Your task to perform on an android device: uninstall "Chime – Mobile Banking" Image 0: 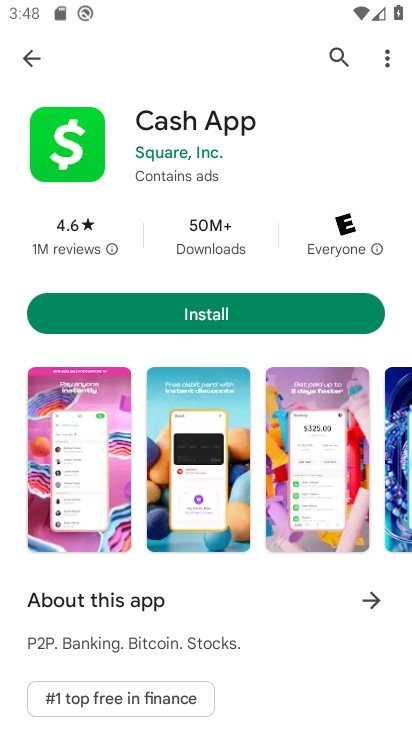
Step 0: press home button
Your task to perform on an android device: uninstall "Chime – Mobile Banking" Image 1: 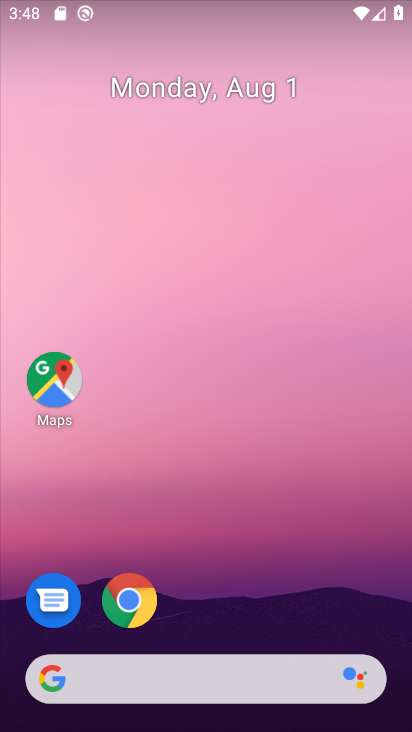
Step 1: drag from (248, 570) to (185, 6)
Your task to perform on an android device: uninstall "Chime – Mobile Banking" Image 2: 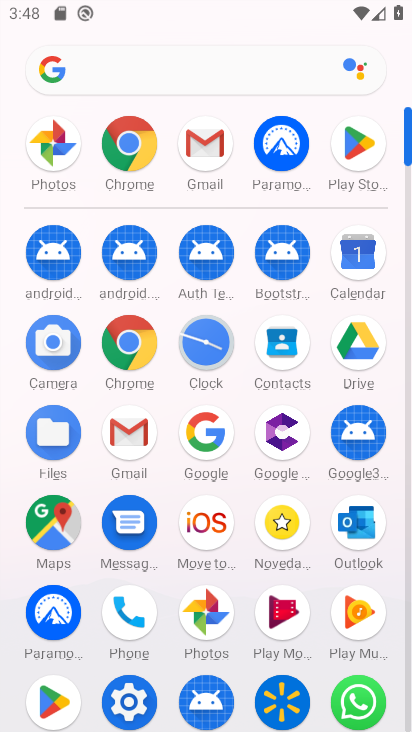
Step 2: click (359, 148)
Your task to perform on an android device: uninstall "Chime – Mobile Banking" Image 3: 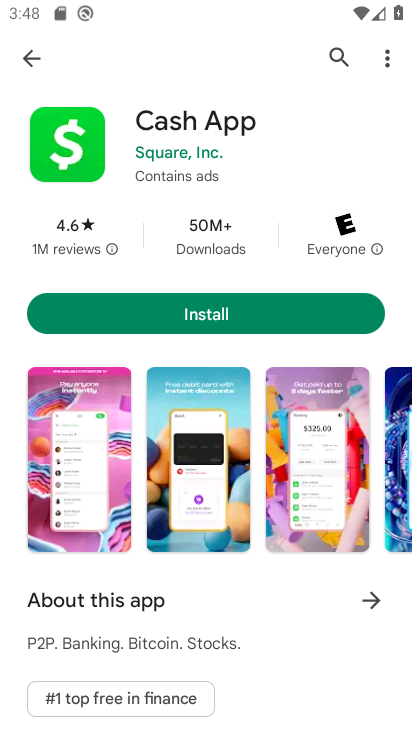
Step 3: click (337, 58)
Your task to perform on an android device: uninstall "Chime – Mobile Banking" Image 4: 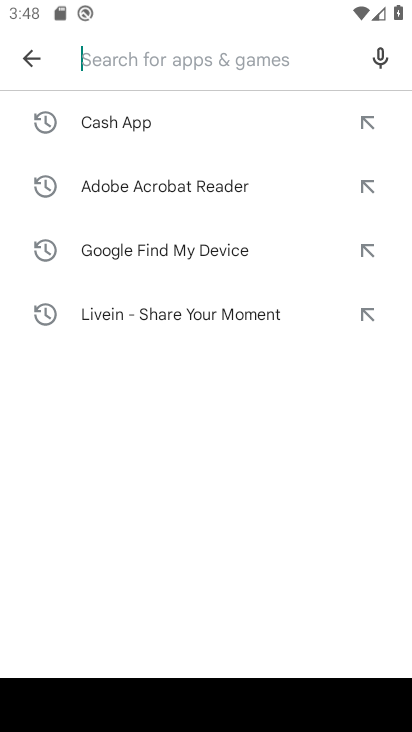
Step 4: type "Chimme - Mobile Banking"
Your task to perform on an android device: uninstall "Chime – Mobile Banking" Image 5: 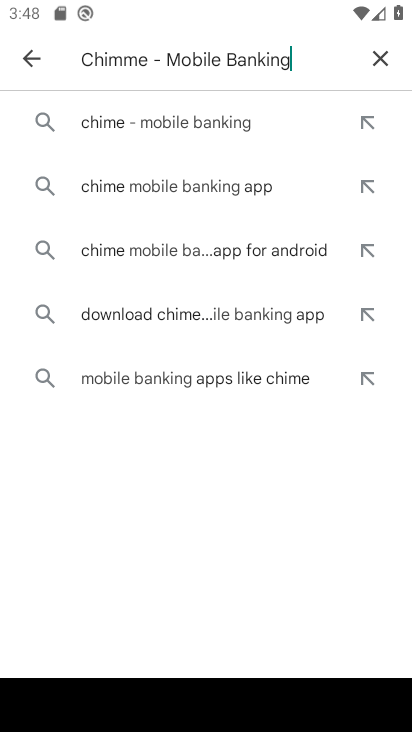
Step 5: press enter
Your task to perform on an android device: uninstall "Chime – Mobile Banking" Image 6: 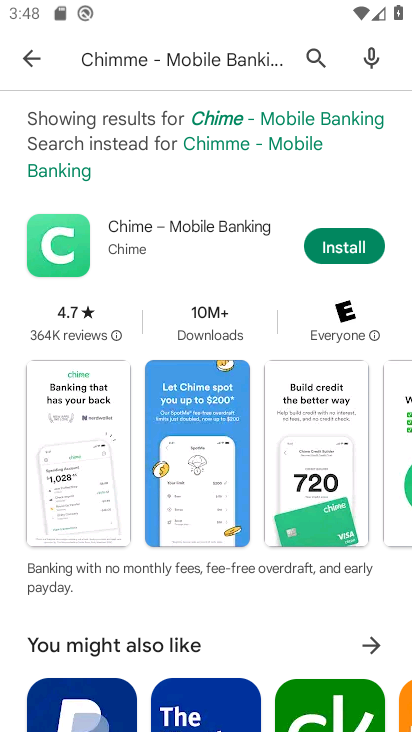
Step 6: click (137, 245)
Your task to perform on an android device: uninstall "Chime – Mobile Banking" Image 7: 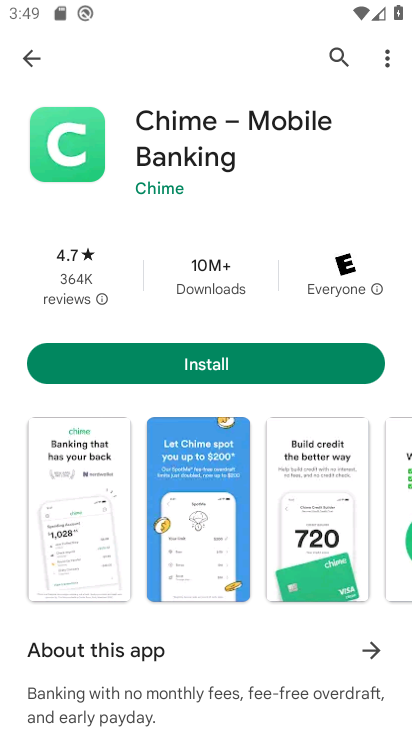
Step 7: task complete